Your task to perform on an android device: Open calendar and show me the second week of next month Image 0: 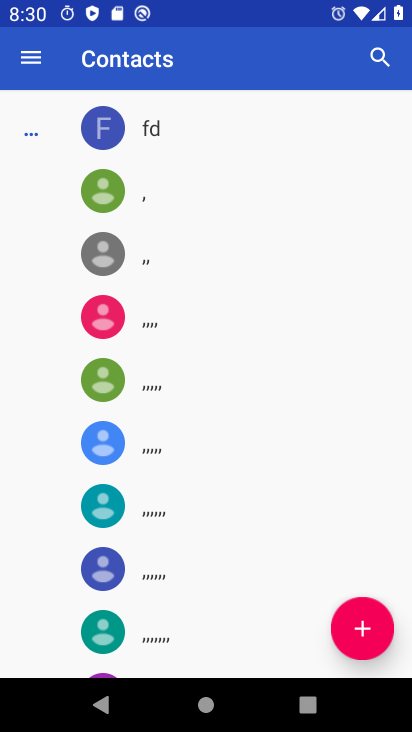
Step 0: press home button
Your task to perform on an android device: Open calendar and show me the second week of next month Image 1: 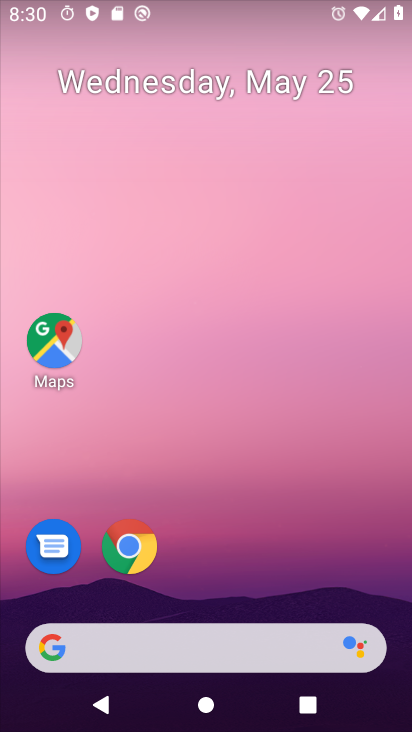
Step 1: drag from (213, 600) to (193, 12)
Your task to perform on an android device: Open calendar and show me the second week of next month Image 2: 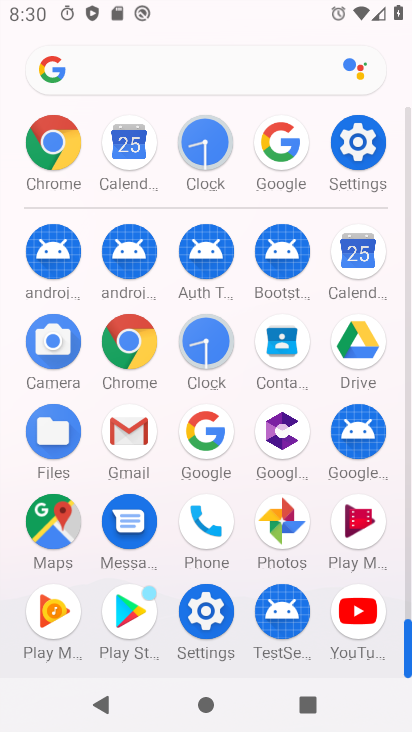
Step 2: click (366, 275)
Your task to perform on an android device: Open calendar and show me the second week of next month Image 3: 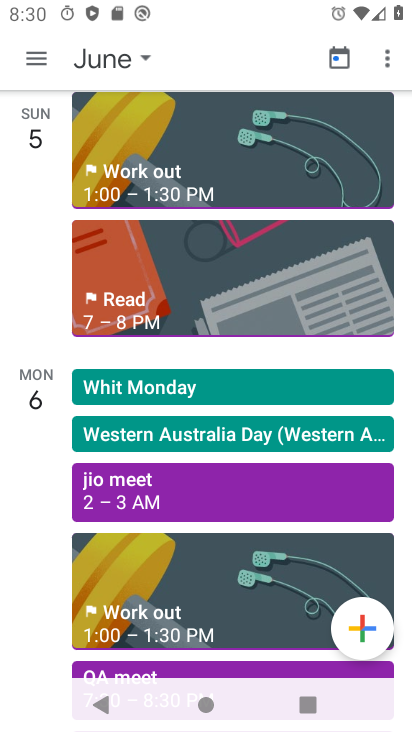
Step 3: click (30, 61)
Your task to perform on an android device: Open calendar and show me the second week of next month Image 4: 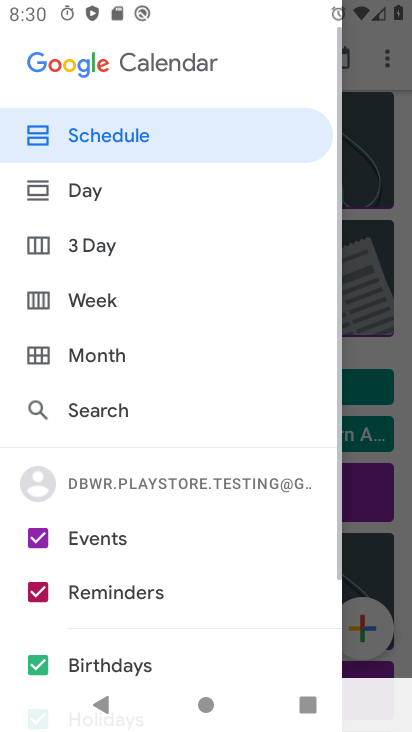
Step 4: click (117, 301)
Your task to perform on an android device: Open calendar and show me the second week of next month Image 5: 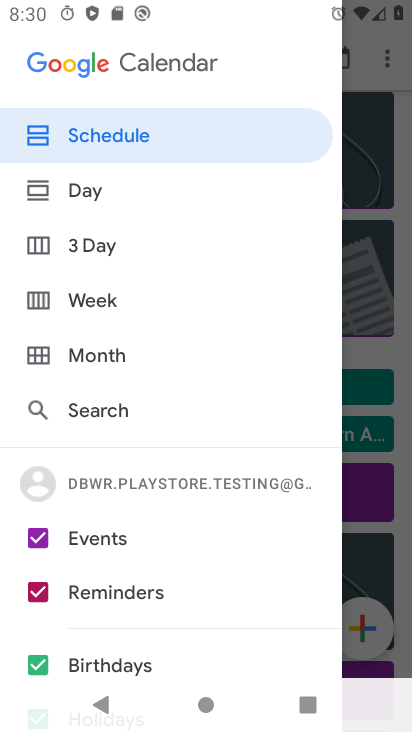
Step 5: click (123, 303)
Your task to perform on an android device: Open calendar and show me the second week of next month Image 6: 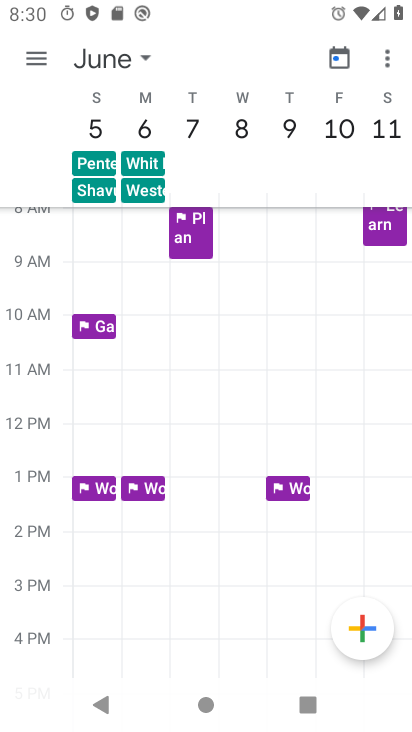
Step 6: click (119, 62)
Your task to perform on an android device: Open calendar and show me the second week of next month Image 7: 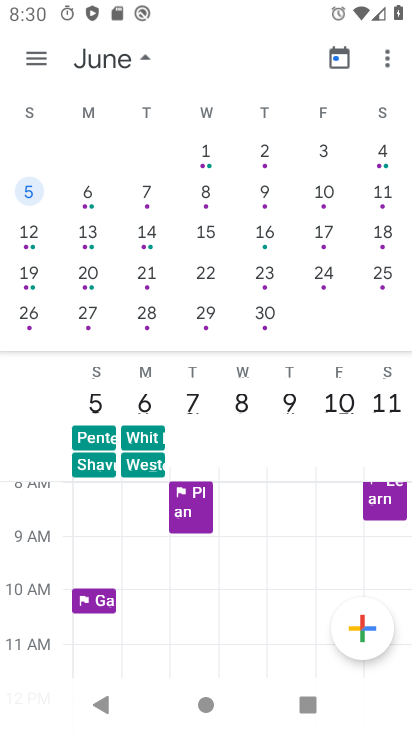
Step 7: click (28, 235)
Your task to perform on an android device: Open calendar and show me the second week of next month Image 8: 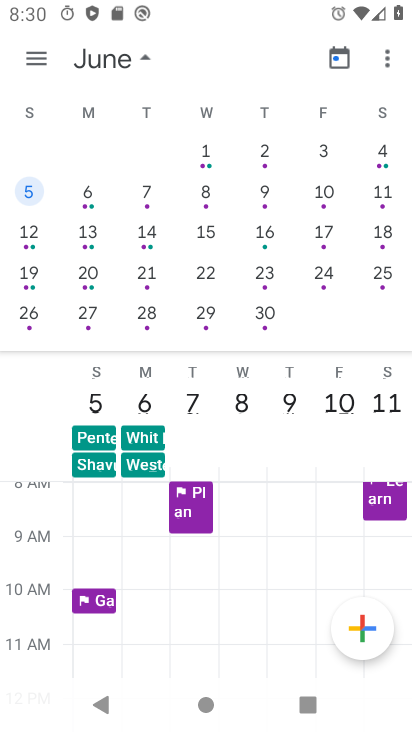
Step 8: click (33, 235)
Your task to perform on an android device: Open calendar and show me the second week of next month Image 9: 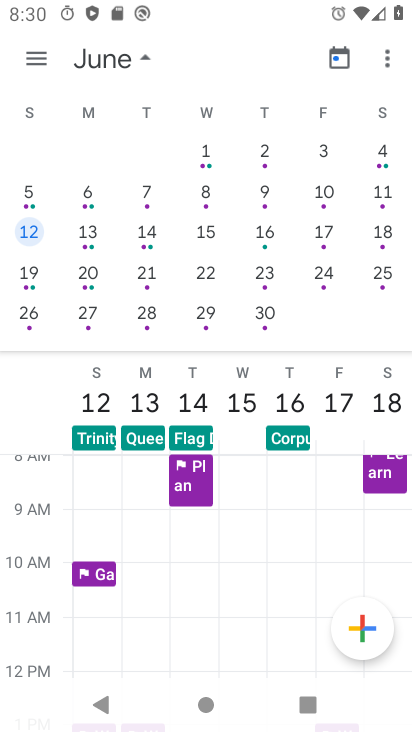
Step 9: task complete